Your task to perform on an android device: turn on priority inbox in the gmail app Image 0: 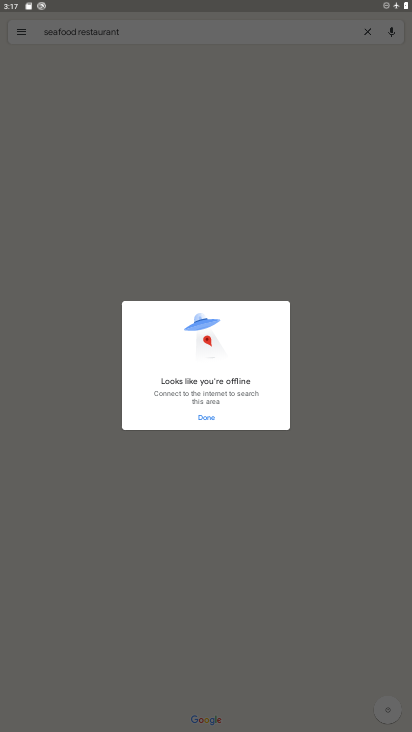
Step 0: press home button
Your task to perform on an android device: turn on priority inbox in the gmail app Image 1: 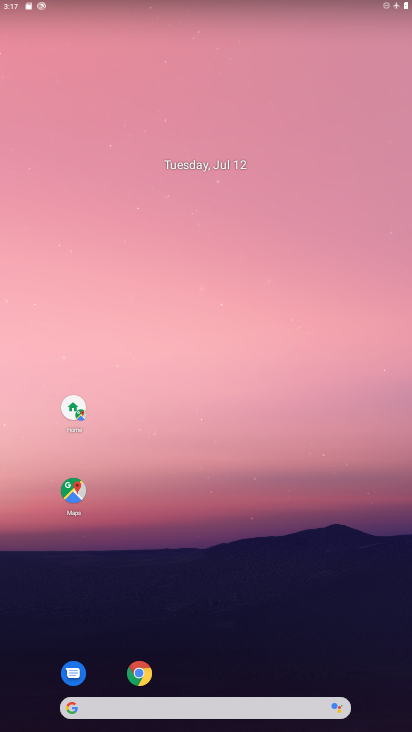
Step 1: drag from (247, 676) to (277, 291)
Your task to perform on an android device: turn on priority inbox in the gmail app Image 2: 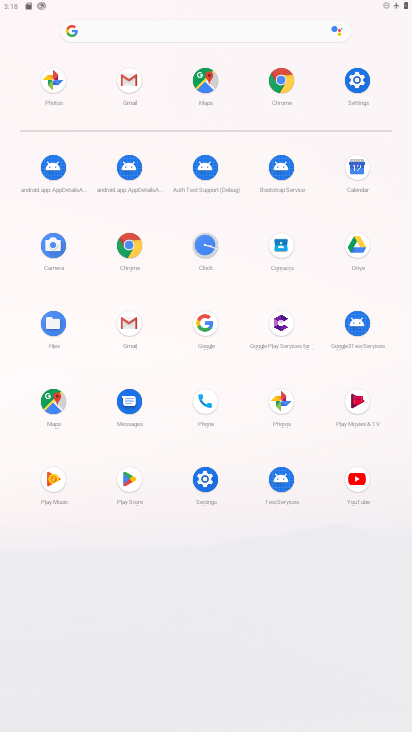
Step 2: click (120, 319)
Your task to perform on an android device: turn on priority inbox in the gmail app Image 3: 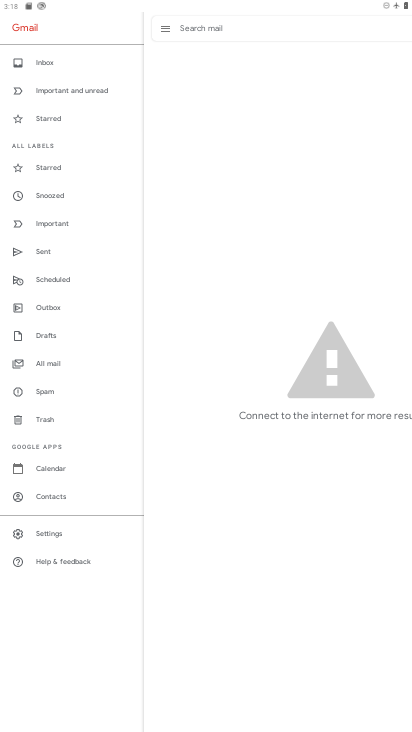
Step 3: click (53, 527)
Your task to perform on an android device: turn on priority inbox in the gmail app Image 4: 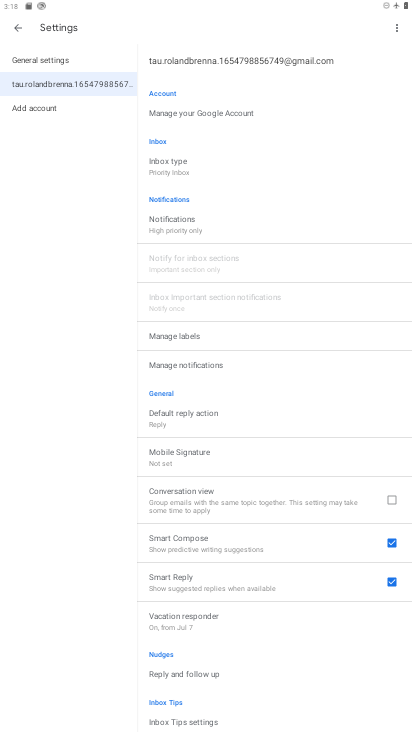
Step 4: click (185, 160)
Your task to perform on an android device: turn on priority inbox in the gmail app Image 5: 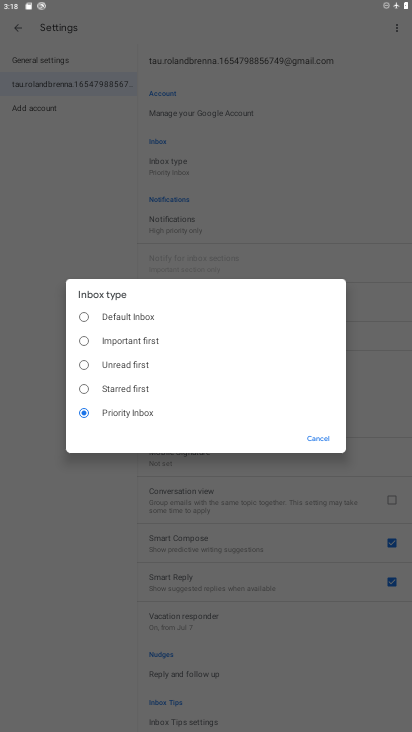
Step 5: task complete